Your task to perform on an android device: Open settings Image 0: 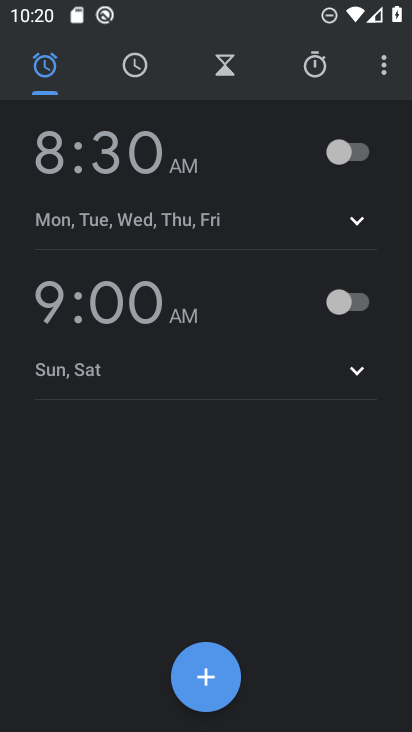
Step 0: press home button
Your task to perform on an android device: Open settings Image 1: 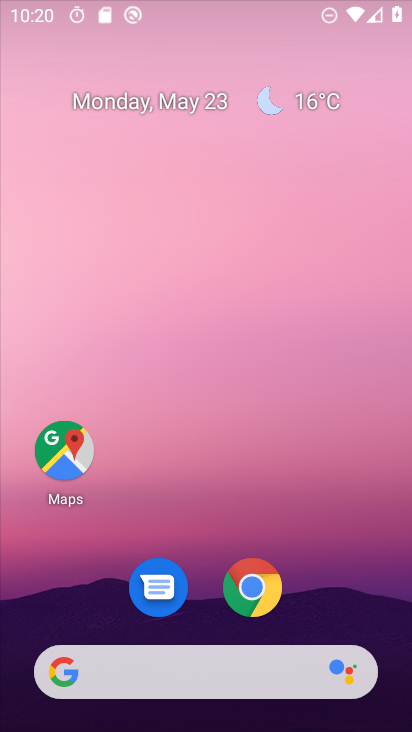
Step 1: drag from (185, 415) to (232, 7)
Your task to perform on an android device: Open settings Image 2: 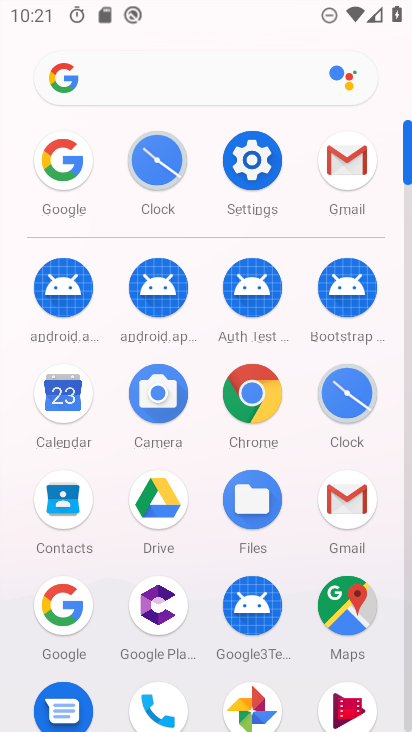
Step 2: click (248, 156)
Your task to perform on an android device: Open settings Image 3: 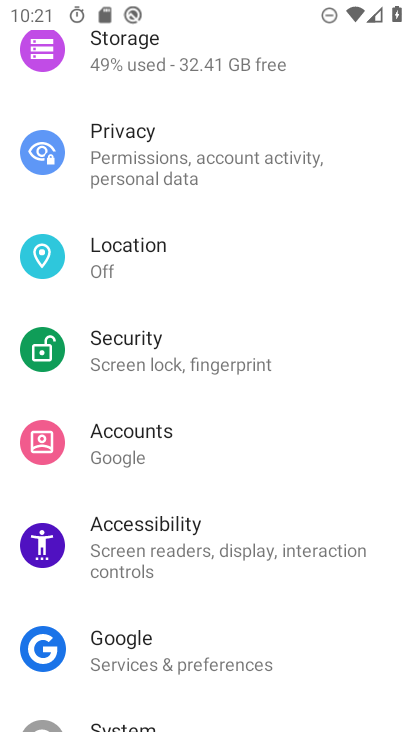
Step 3: task complete